Your task to perform on an android device: Find coffee shops on Maps Image 0: 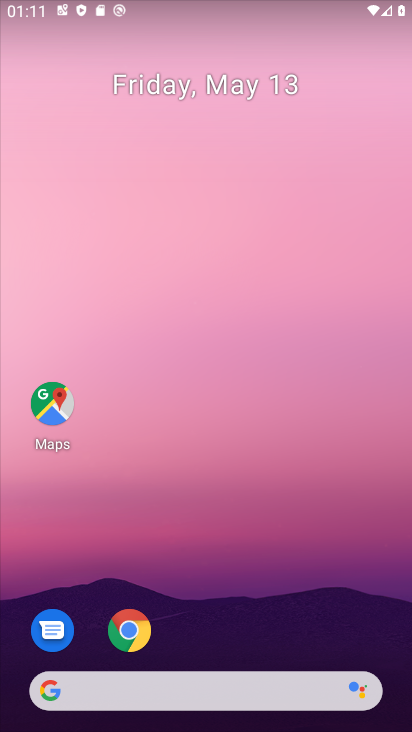
Step 0: drag from (276, 712) to (243, 346)
Your task to perform on an android device: Find coffee shops on Maps Image 1: 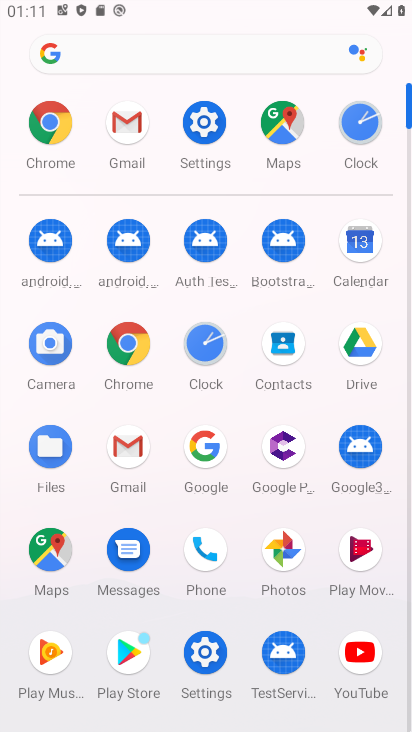
Step 1: click (283, 125)
Your task to perform on an android device: Find coffee shops on Maps Image 2: 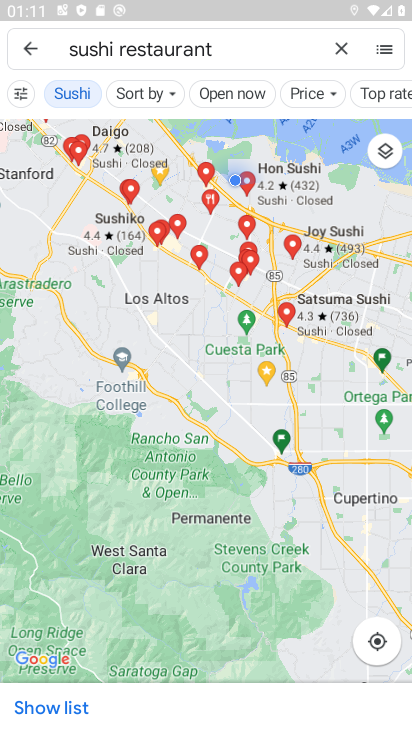
Step 2: click (336, 49)
Your task to perform on an android device: Find coffee shops on Maps Image 3: 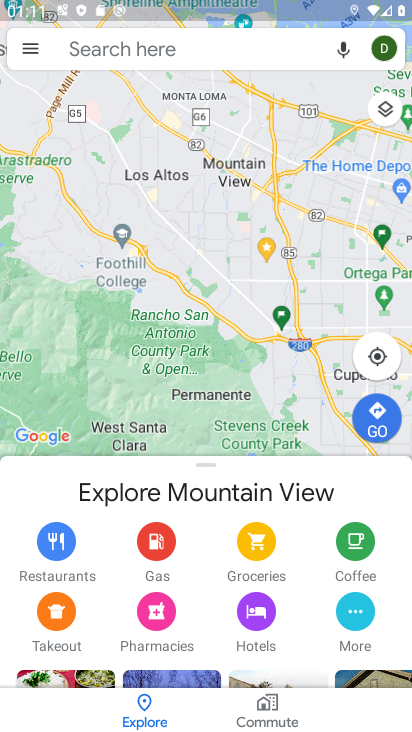
Step 3: click (151, 52)
Your task to perform on an android device: Find coffee shops on Maps Image 4: 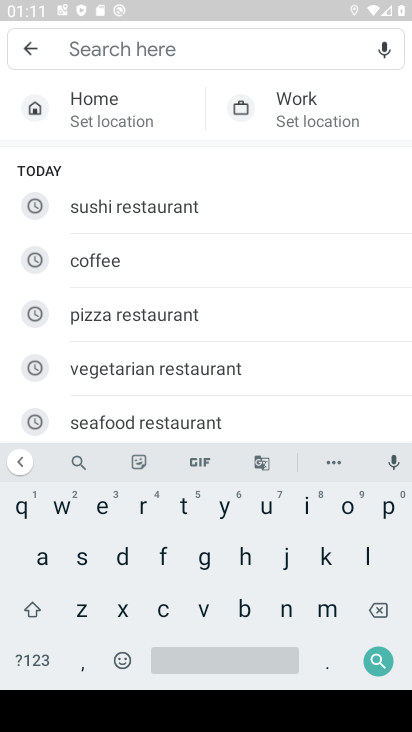
Step 4: click (136, 259)
Your task to perform on an android device: Find coffee shops on Maps Image 5: 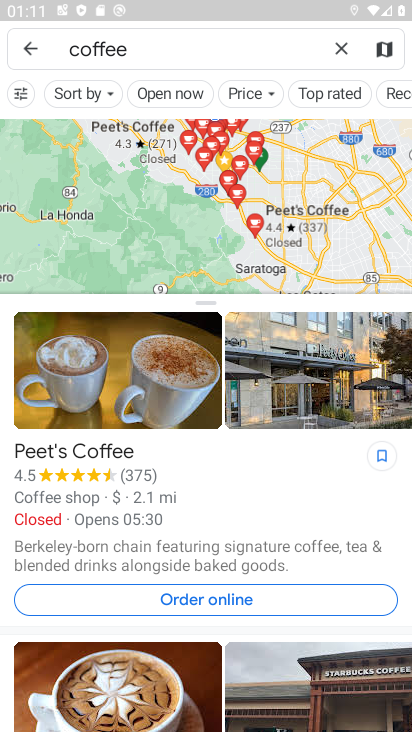
Step 5: click (170, 154)
Your task to perform on an android device: Find coffee shops on Maps Image 6: 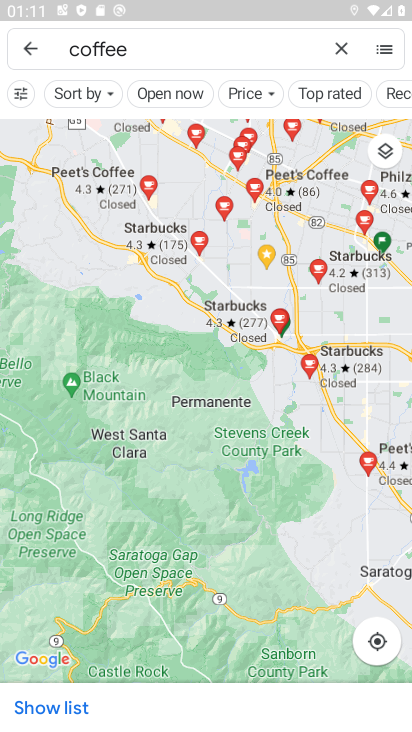
Step 6: task complete